Your task to perform on an android device: toggle sleep mode Image 0: 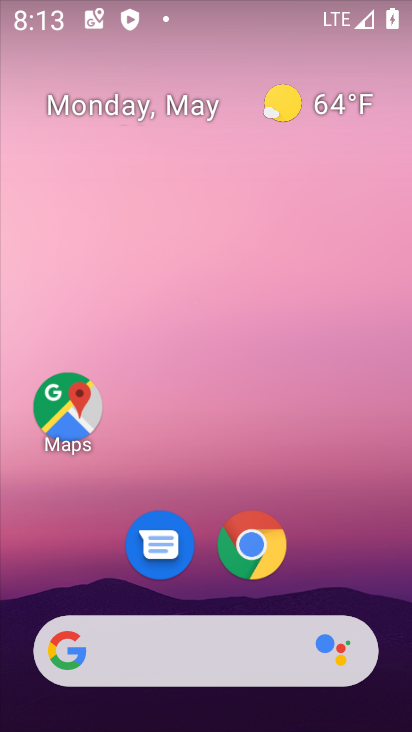
Step 0: drag from (235, 632) to (197, 186)
Your task to perform on an android device: toggle sleep mode Image 1: 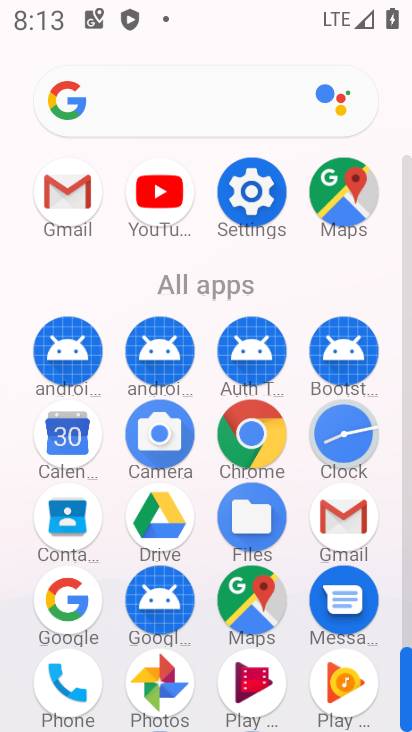
Step 1: click (258, 219)
Your task to perform on an android device: toggle sleep mode Image 2: 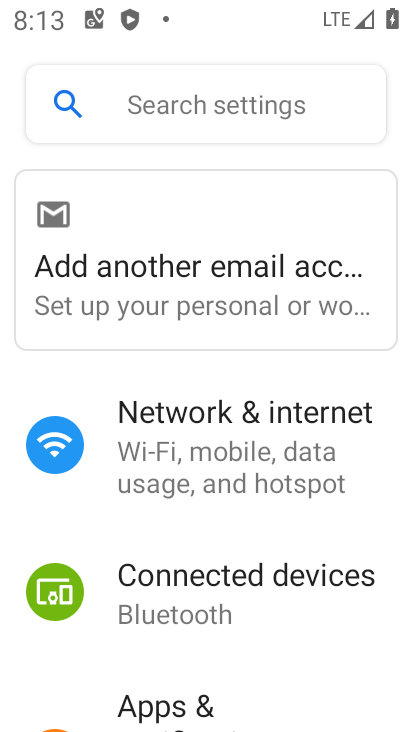
Step 2: click (258, 219)
Your task to perform on an android device: toggle sleep mode Image 3: 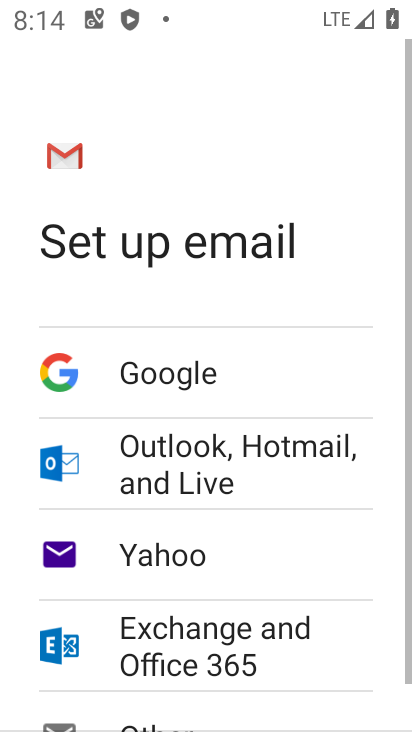
Step 3: press home button
Your task to perform on an android device: toggle sleep mode Image 4: 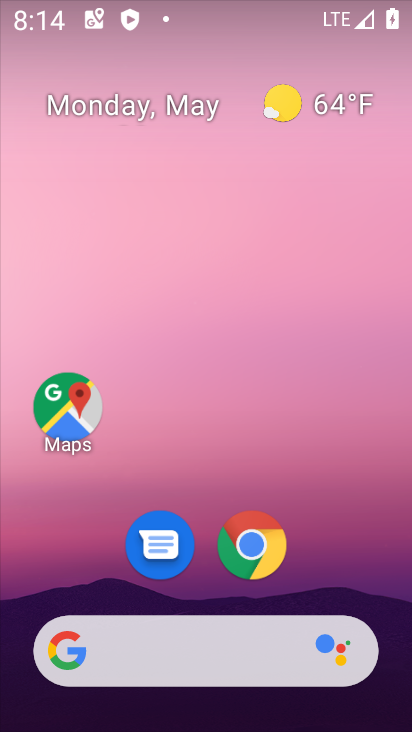
Step 4: drag from (172, 633) to (189, 103)
Your task to perform on an android device: toggle sleep mode Image 5: 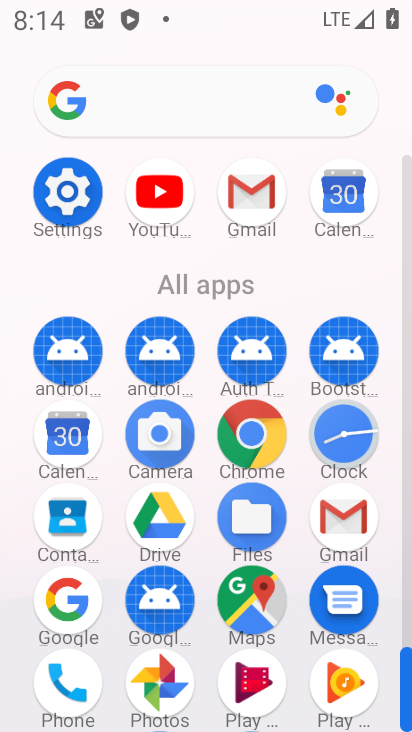
Step 5: click (77, 190)
Your task to perform on an android device: toggle sleep mode Image 6: 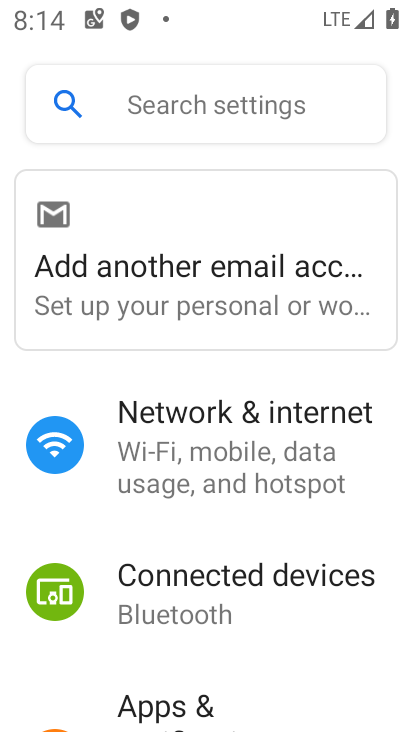
Step 6: drag from (225, 629) to (206, 15)
Your task to perform on an android device: toggle sleep mode Image 7: 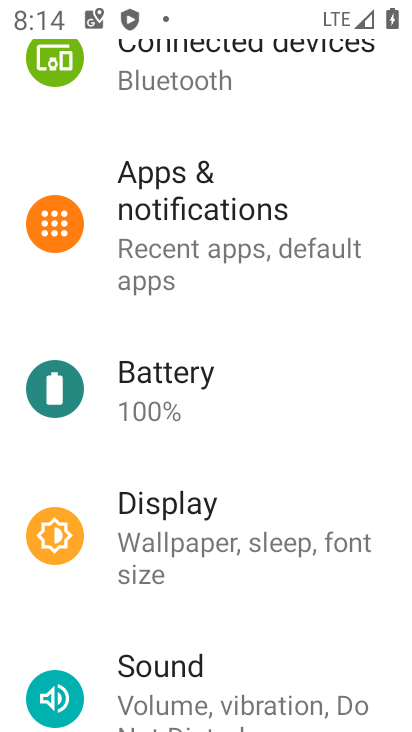
Step 7: click (216, 522)
Your task to perform on an android device: toggle sleep mode Image 8: 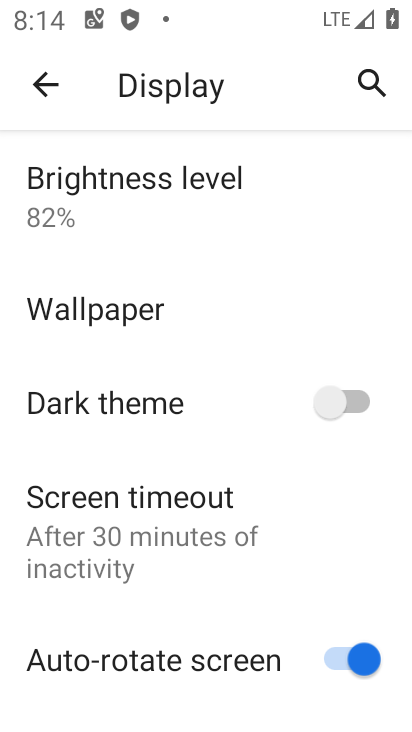
Step 8: drag from (277, 561) to (271, 100)
Your task to perform on an android device: toggle sleep mode Image 9: 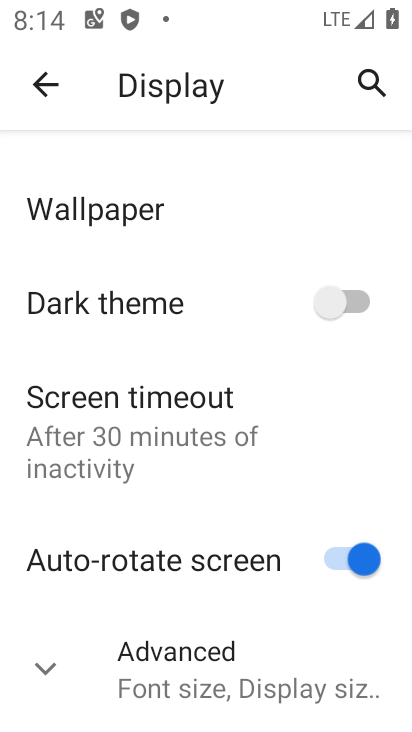
Step 9: click (123, 697)
Your task to perform on an android device: toggle sleep mode Image 10: 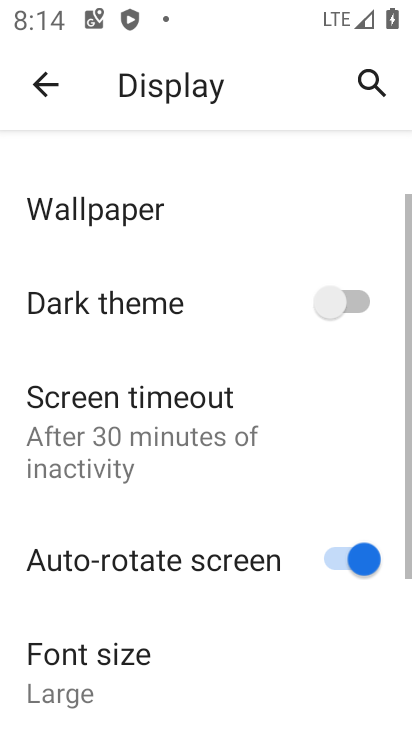
Step 10: task complete